Your task to perform on an android device: visit the assistant section in the google photos Image 0: 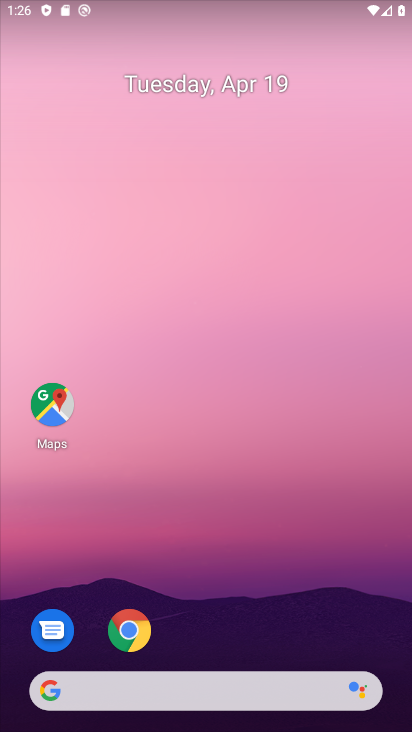
Step 0: drag from (269, 598) to (226, 97)
Your task to perform on an android device: visit the assistant section in the google photos Image 1: 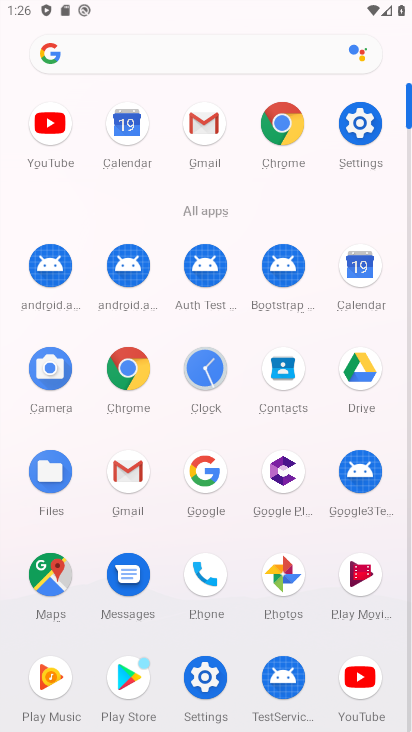
Step 1: click (285, 575)
Your task to perform on an android device: visit the assistant section in the google photos Image 2: 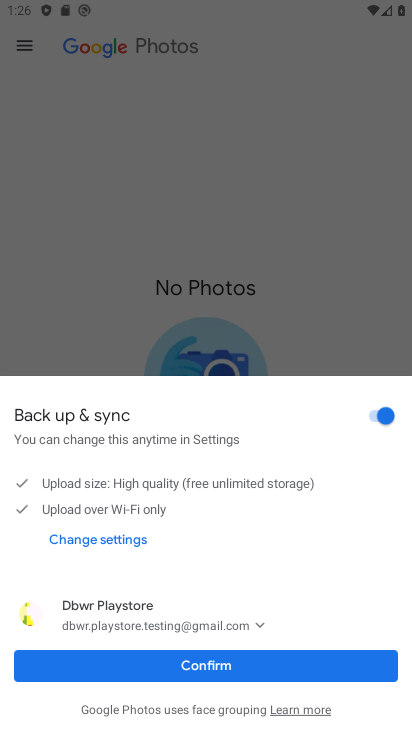
Step 2: click (299, 661)
Your task to perform on an android device: visit the assistant section in the google photos Image 3: 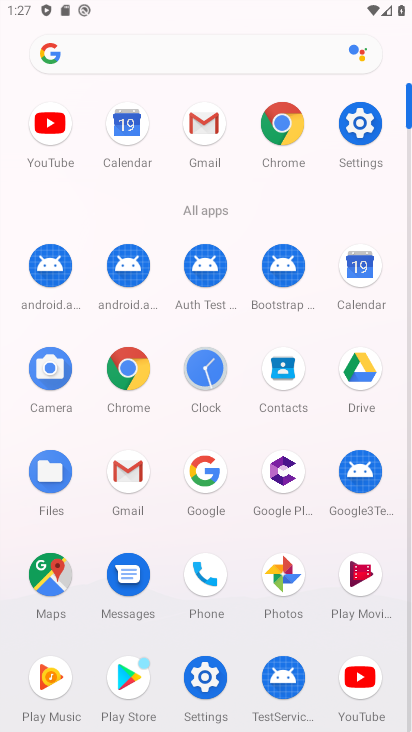
Step 3: click (287, 567)
Your task to perform on an android device: visit the assistant section in the google photos Image 4: 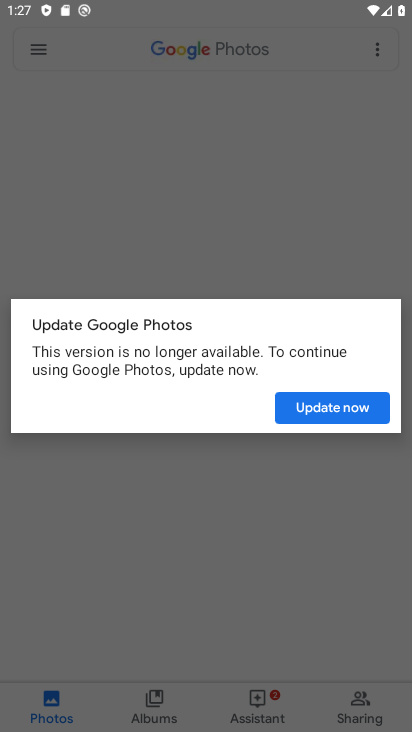
Step 4: click (318, 402)
Your task to perform on an android device: visit the assistant section in the google photos Image 5: 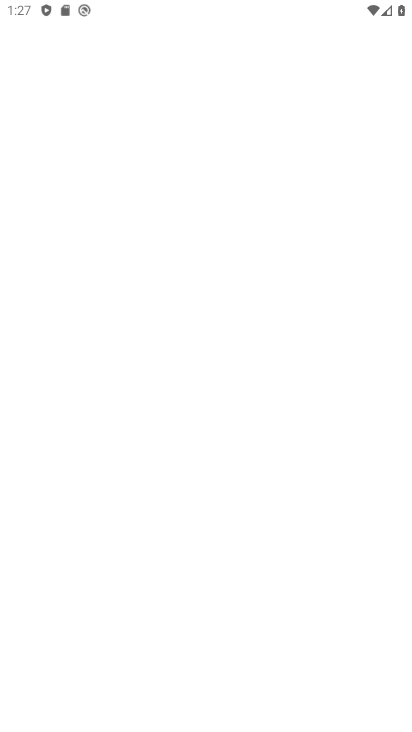
Step 5: click (319, 404)
Your task to perform on an android device: visit the assistant section in the google photos Image 6: 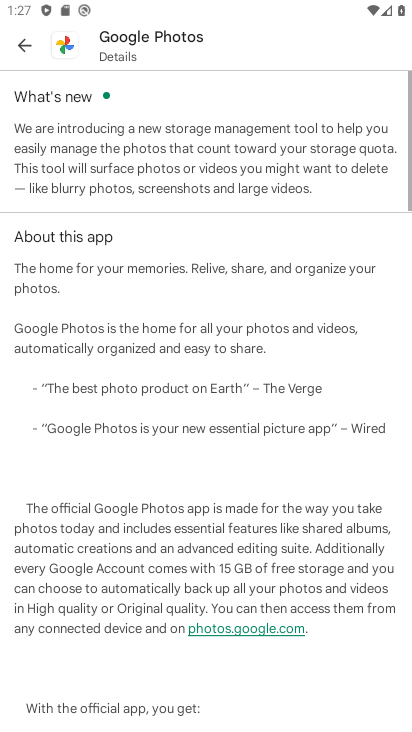
Step 6: click (134, 178)
Your task to perform on an android device: visit the assistant section in the google photos Image 7: 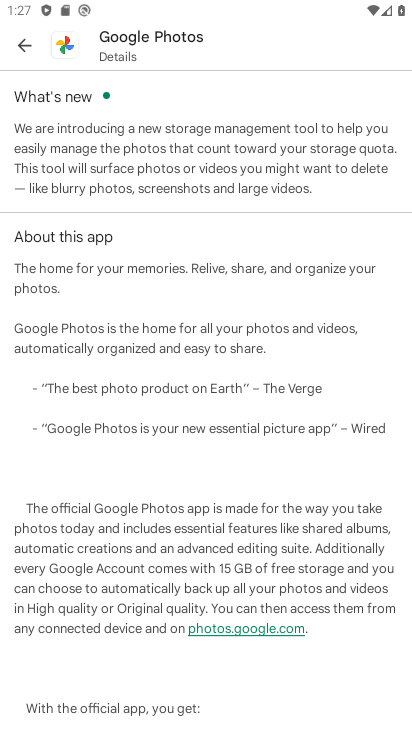
Step 7: drag from (217, 116) to (207, 493)
Your task to perform on an android device: visit the assistant section in the google photos Image 8: 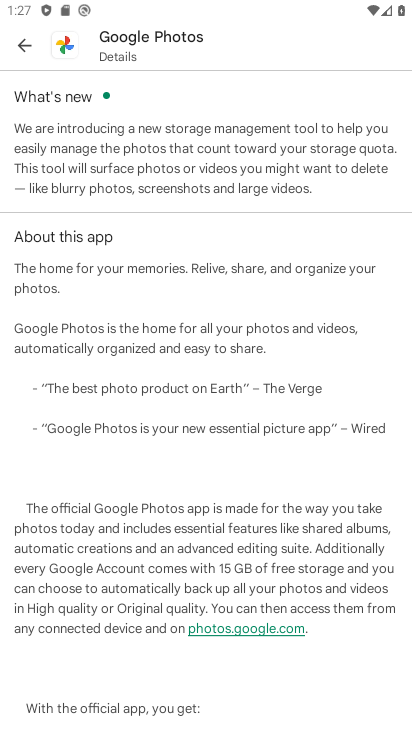
Step 8: click (22, 40)
Your task to perform on an android device: visit the assistant section in the google photos Image 9: 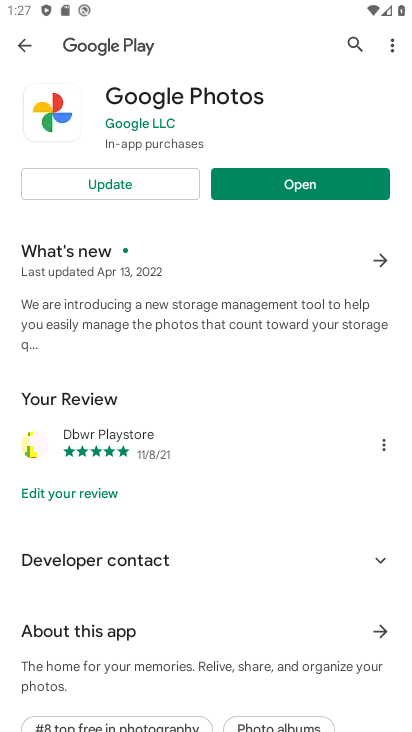
Step 9: click (115, 181)
Your task to perform on an android device: visit the assistant section in the google photos Image 10: 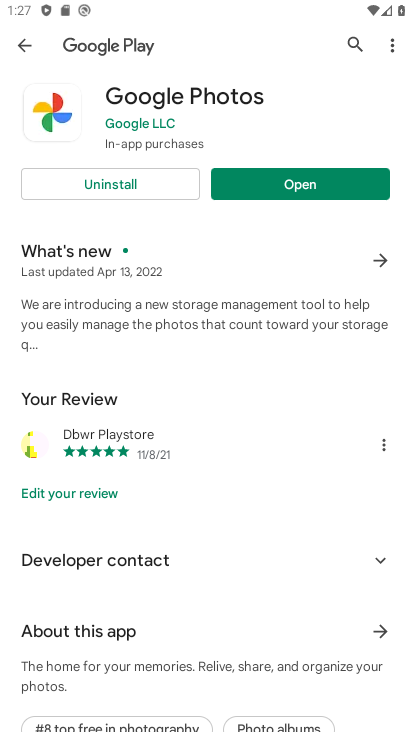
Step 10: click (270, 187)
Your task to perform on an android device: visit the assistant section in the google photos Image 11: 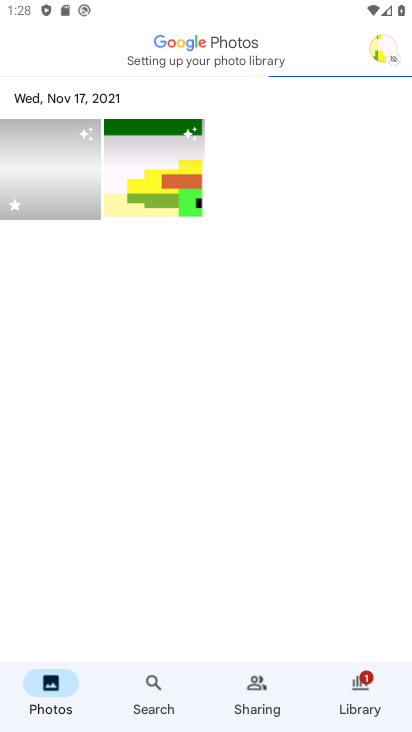
Step 11: click (365, 693)
Your task to perform on an android device: visit the assistant section in the google photos Image 12: 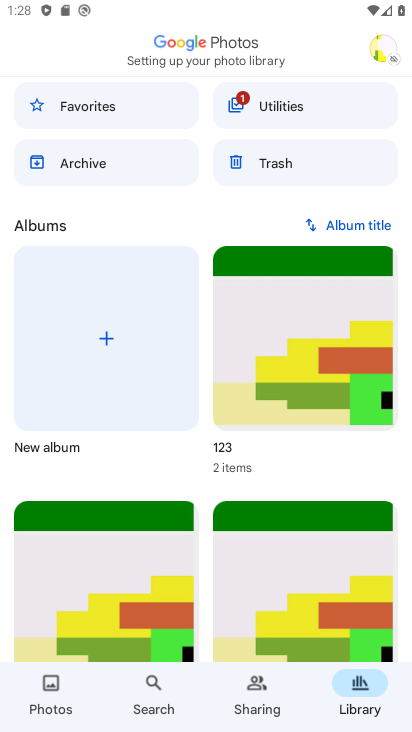
Step 12: drag from (169, 442) to (178, 89)
Your task to perform on an android device: visit the assistant section in the google photos Image 13: 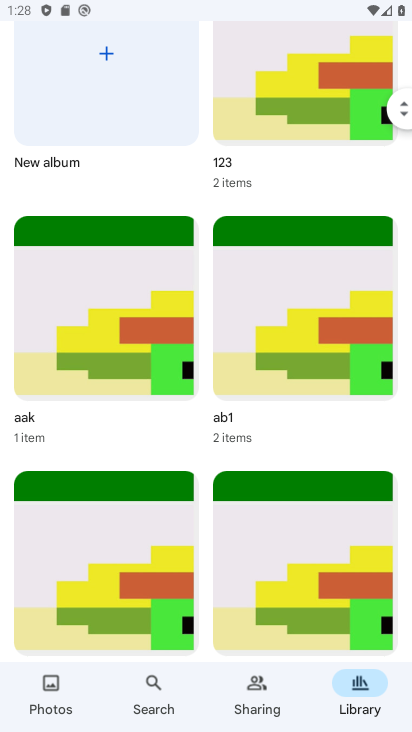
Step 13: click (53, 684)
Your task to perform on an android device: visit the assistant section in the google photos Image 14: 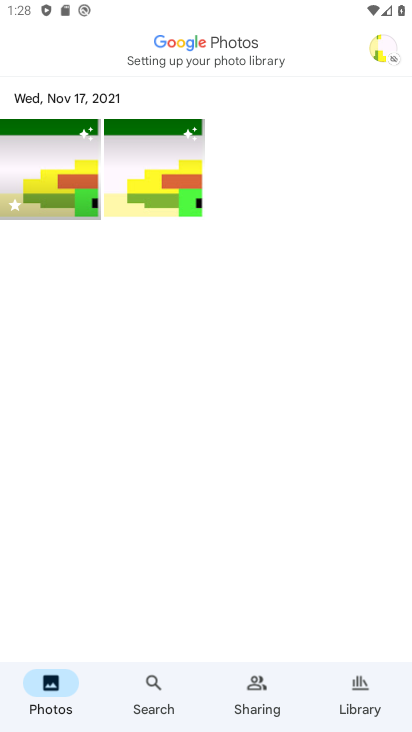
Step 14: click (151, 686)
Your task to perform on an android device: visit the assistant section in the google photos Image 15: 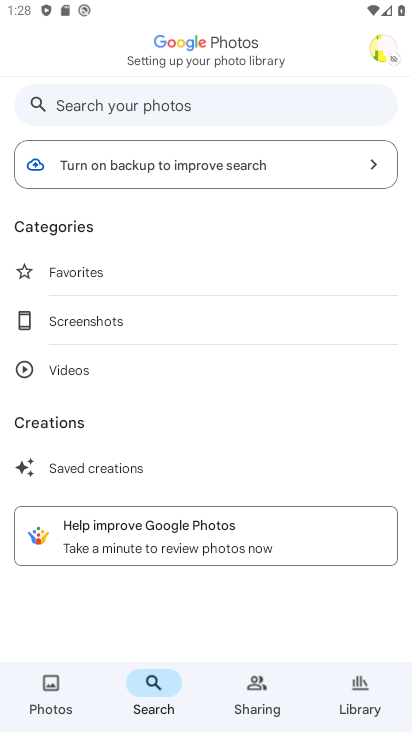
Step 15: drag from (175, 473) to (202, 224)
Your task to perform on an android device: visit the assistant section in the google photos Image 16: 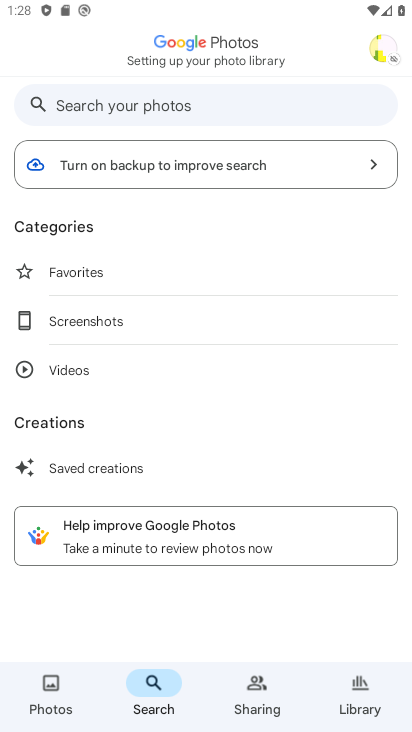
Step 16: click (180, 108)
Your task to perform on an android device: visit the assistant section in the google photos Image 17: 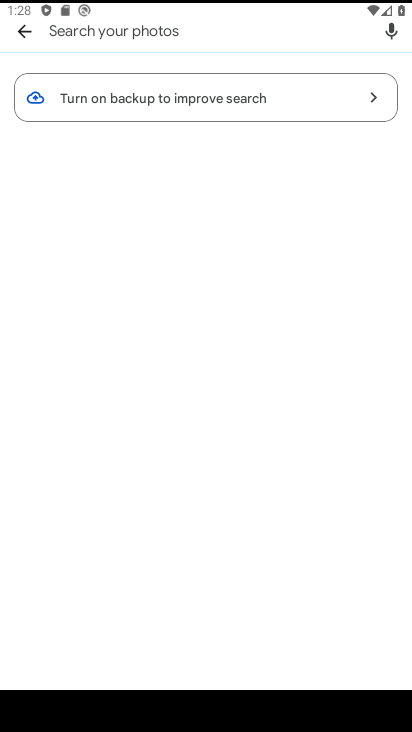
Step 17: type "assitant"
Your task to perform on an android device: visit the assistant section in the google photos Image 18: 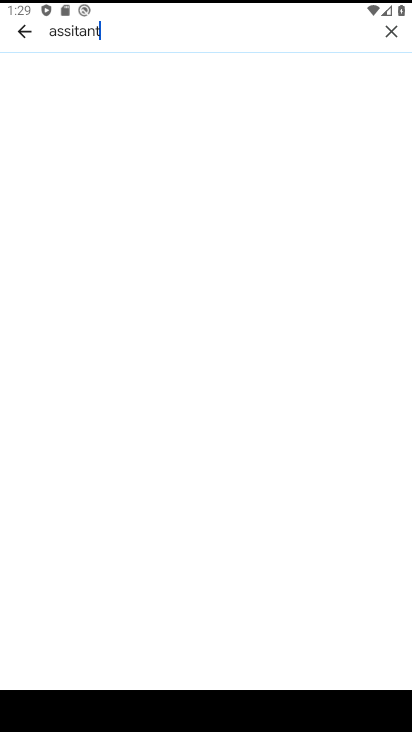
Step 18: click (390, 33)
Your task to perform on an android device: visit the assistant section in the google photos Image 19: 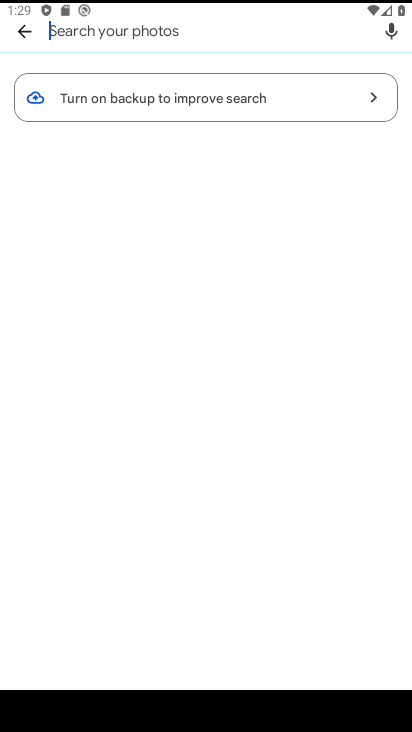
Step 19: click (12, 31)
Your task to perform on an android device: visit the assistant section in the google photos Image 20: 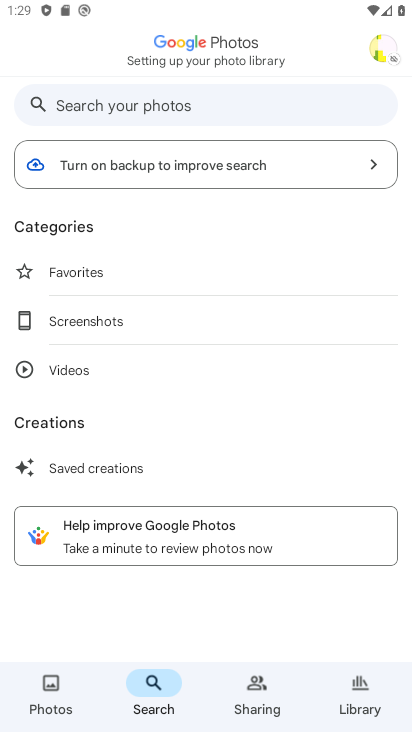
Step 20: click (53, 688)
Your task to perform on an android device: visit the assistant section in the google photos Image 21: 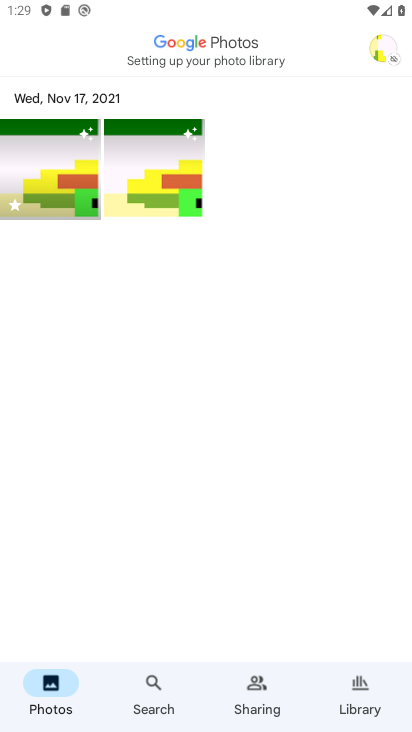
Step 21: click (351, 697)
Your task to perform on an android device: visit the assistant section in the google photos Image 22: 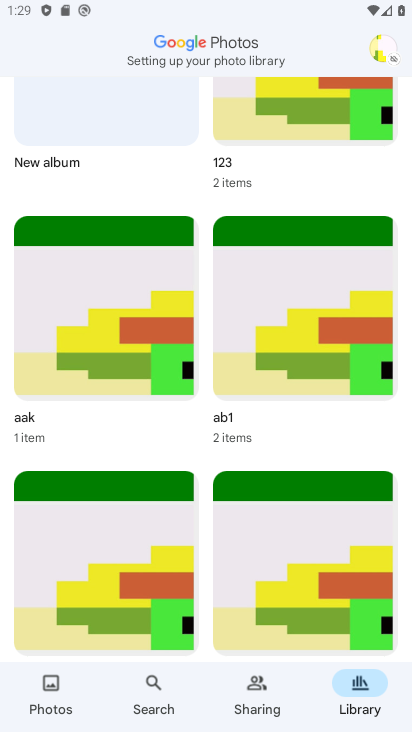
Step 22: drag from (289, 487) to (291, 152)
Your task to perform on an android device: visit the assistant section in the google photos Image 23: 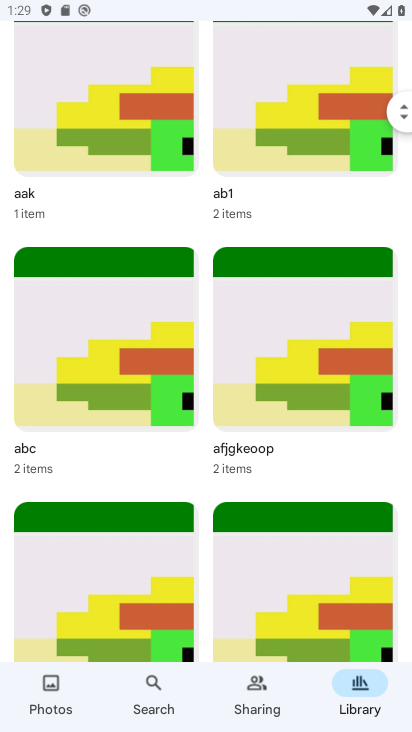
Step 23: drag from (206, 532) to (219, 188)
Your task to perform on an android device: visit the assistant section in the google photos Image 24: 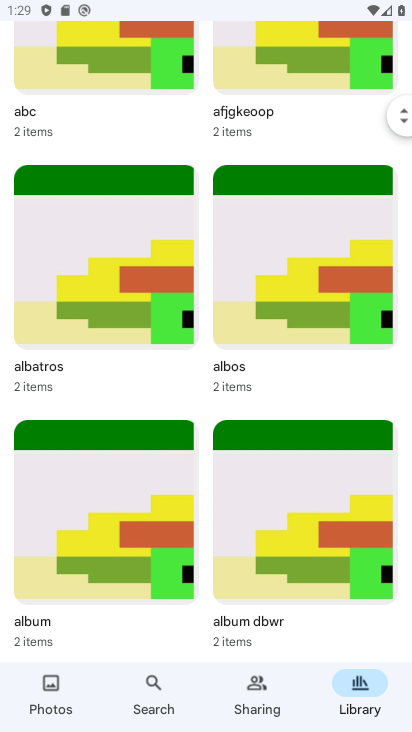
Step 24: drag from (187, 338) to (232, 39)
Your task to perform on an android device: visit the assistant section in the google photos Image 25: 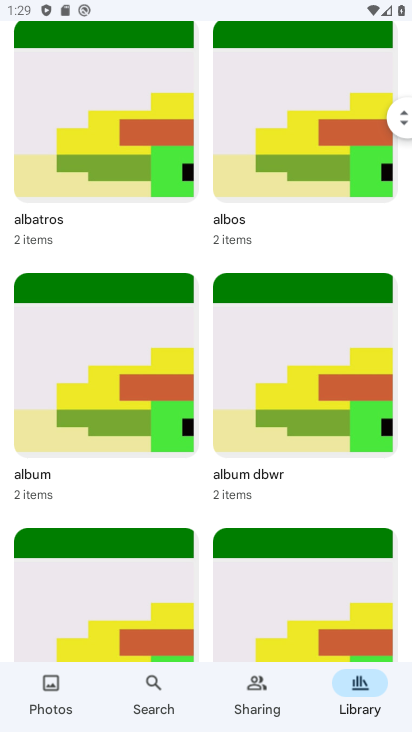
Step 25: drag from (222, 296) to (204, 662)
Your task to perform on an android device: visit the assistant section in the google photos Image 26: 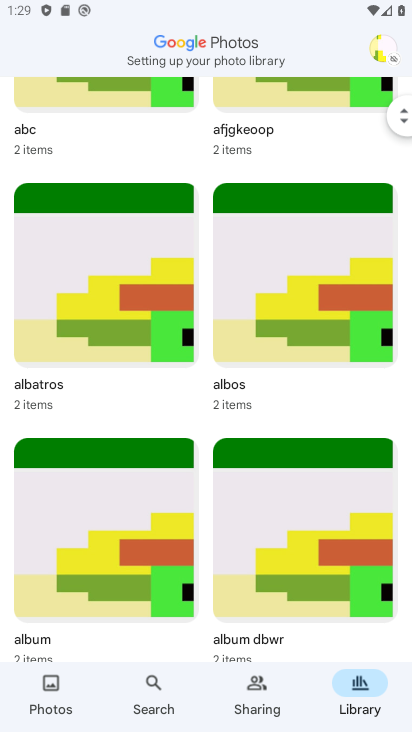
Step 26: drag from (175, 190) to (150, 613)
Your task to perform on an android device: visit the assistant section in the google photos Image 27: 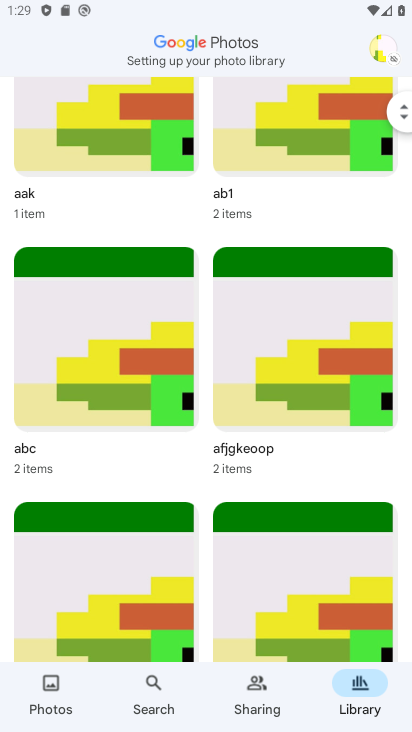
Step 27: click (177, 694)
Your task to perform on an android device: visit the assistant section in the google photos Image 28: 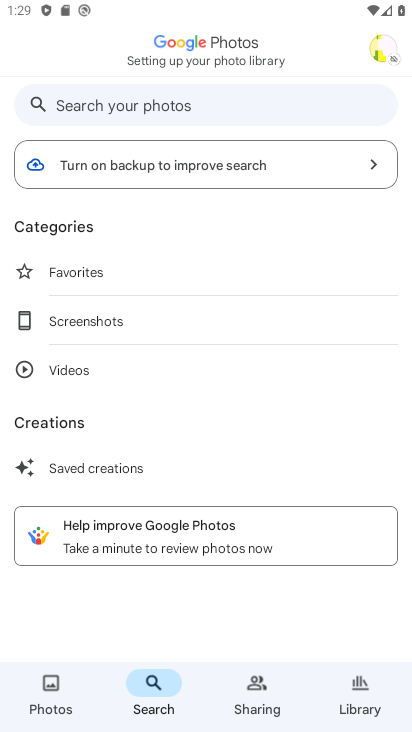
Step 28: click (188, 104)
Your task to perform on an android device: visit the assistant section in the google photos Image 29: 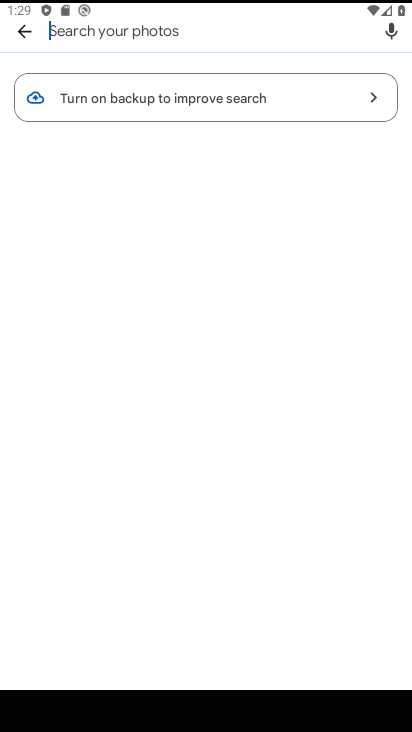
Step 29: type "assistant"
Your task to perform on an android device: visit the assistant section in the google photos Image 30: 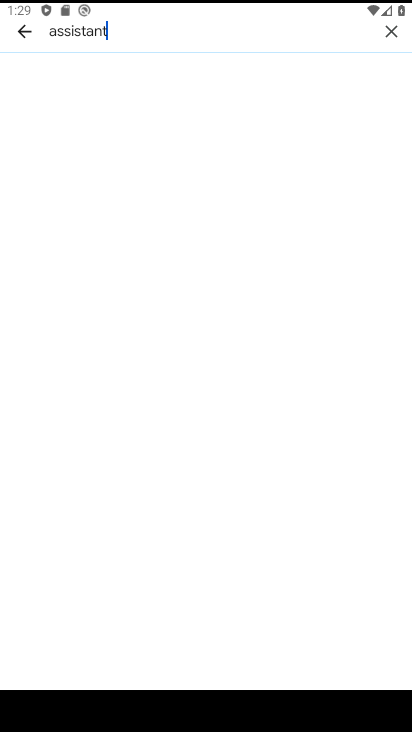
Step 30: task complete